Your task to perform on an android device: Open eBay Image 0: 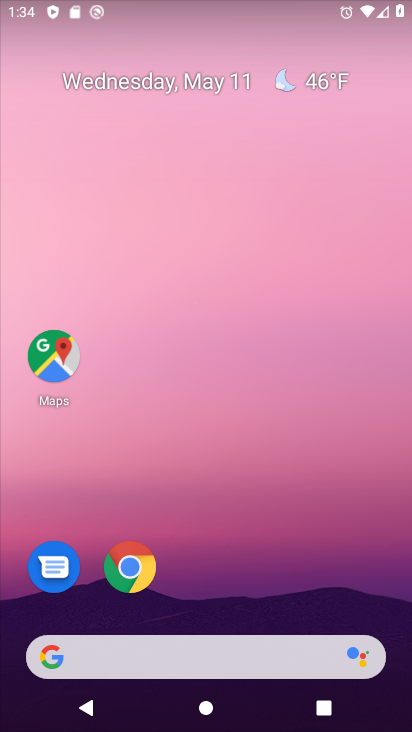
Step 0: click (134, 543)
Your task to perform on an android device: Open eBay Image 1: 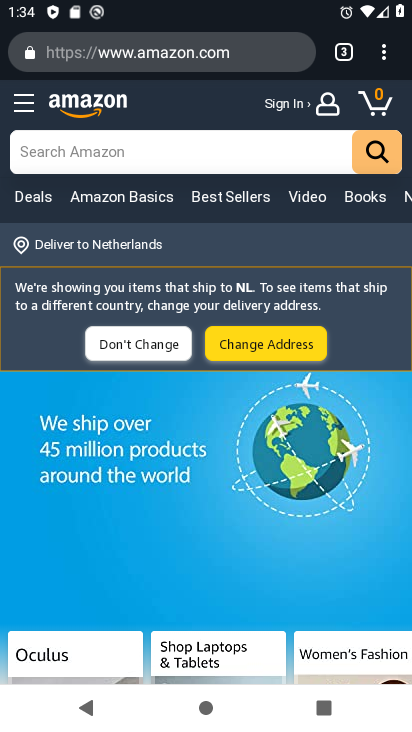
Step 1: click (326, 59)
Your task to perform on an android device: Open eBay Image 2: 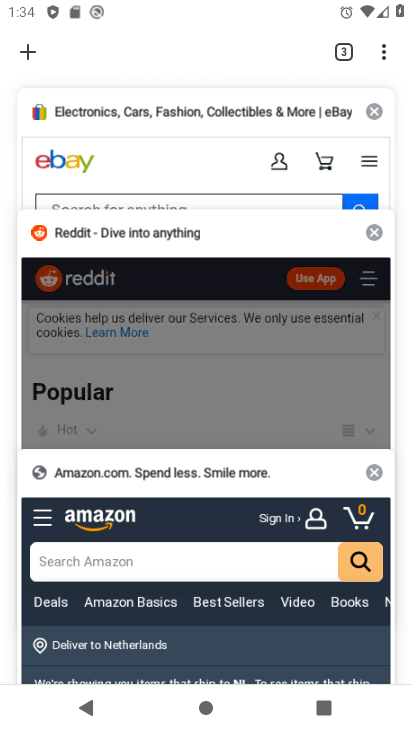
Step 2: click (82, 150)
Your task to perform on an android device: Open eBay Image 3: 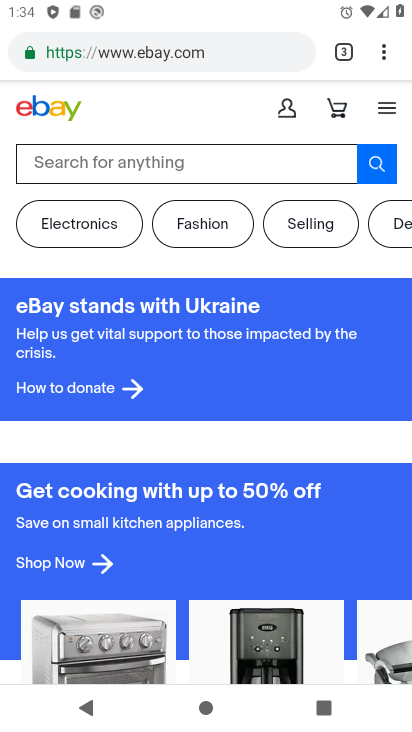
Step 3: task complete